Your task to perform on an android device: turn on improve location accuracy Image 0: 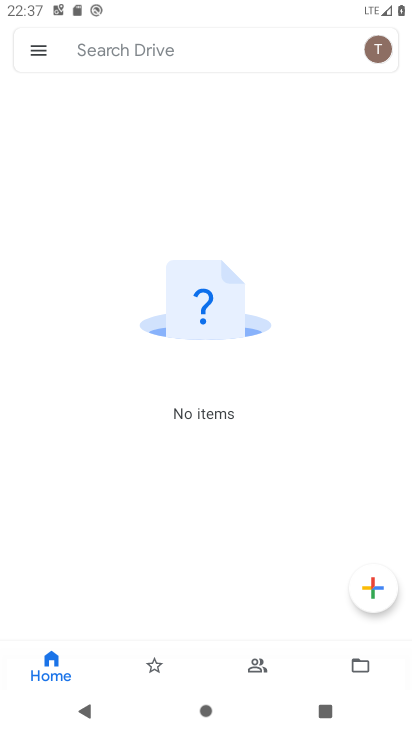
Step 0: press home button
Your task to perform on an android device: turn on improve location accuracy Image 1: 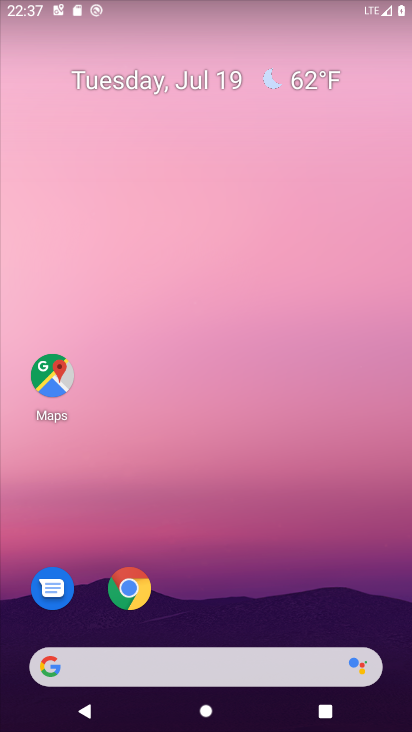
Step 1: drag from (183, 569) to (170, 156)
Your task to perform on an android device: turn on improve location accuracy Image 2: 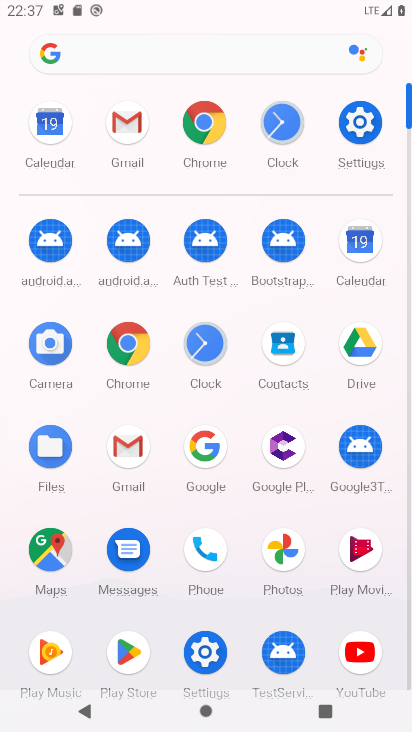
Step 2: click (354, 123)
Your task to perform on an android device: turn on improve location accuracy Image 3: 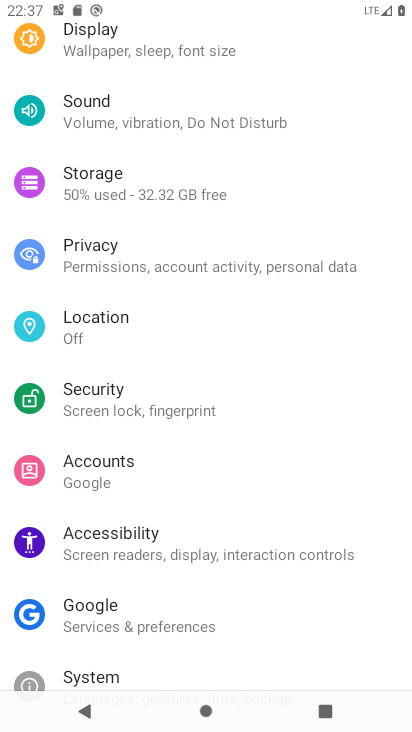
Step 3: click (82, 334)
Your task to perform on an android device: turn on improve location accuracy Image 4: 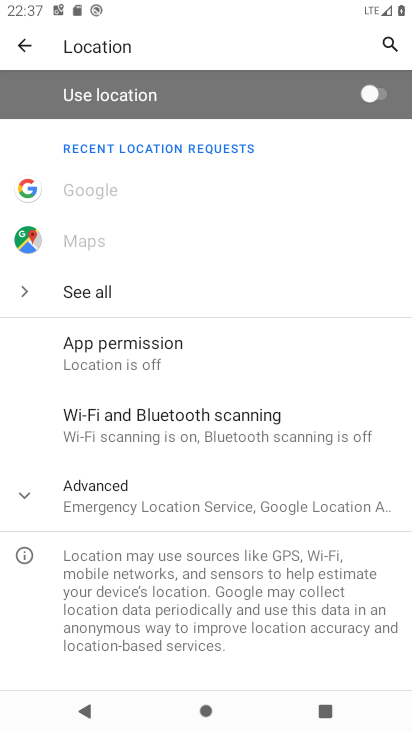
Step 4: click (107, 493)
Your task to perform on an android device: turn on improve location accuracy Image 5: 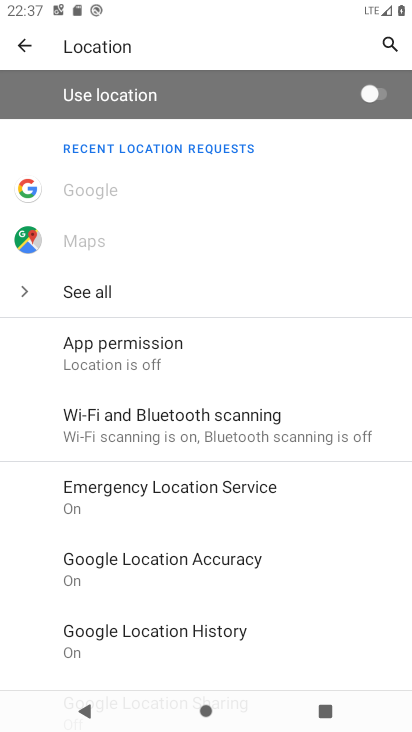
Step 5: click (168, 571)
Your task to perform on an android device: turn on improve location accuracy Image 6: 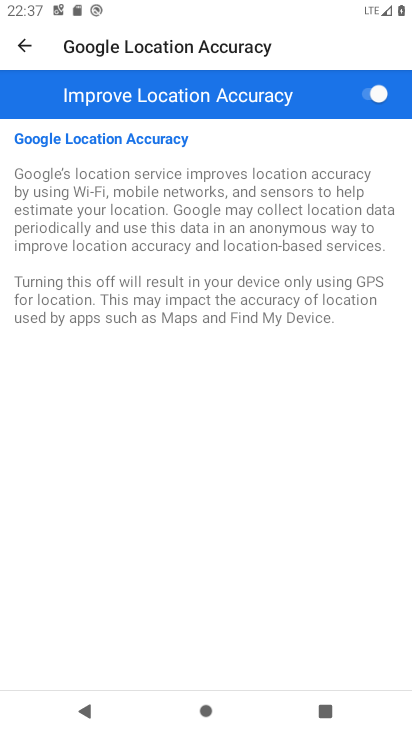
Step 6: task complete